Your task to perform on an android device: Open Youtube and go to "Your channel" Image 0: 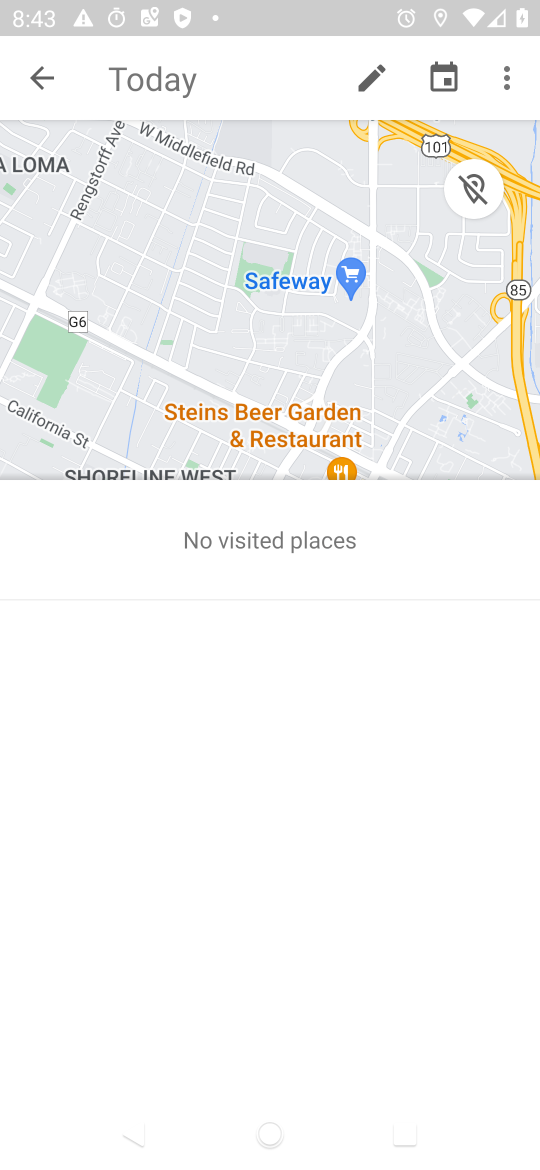
Step 0: press home button
Your task to perform on an android device: Open Youtube and go to "Your channel" Image 1: 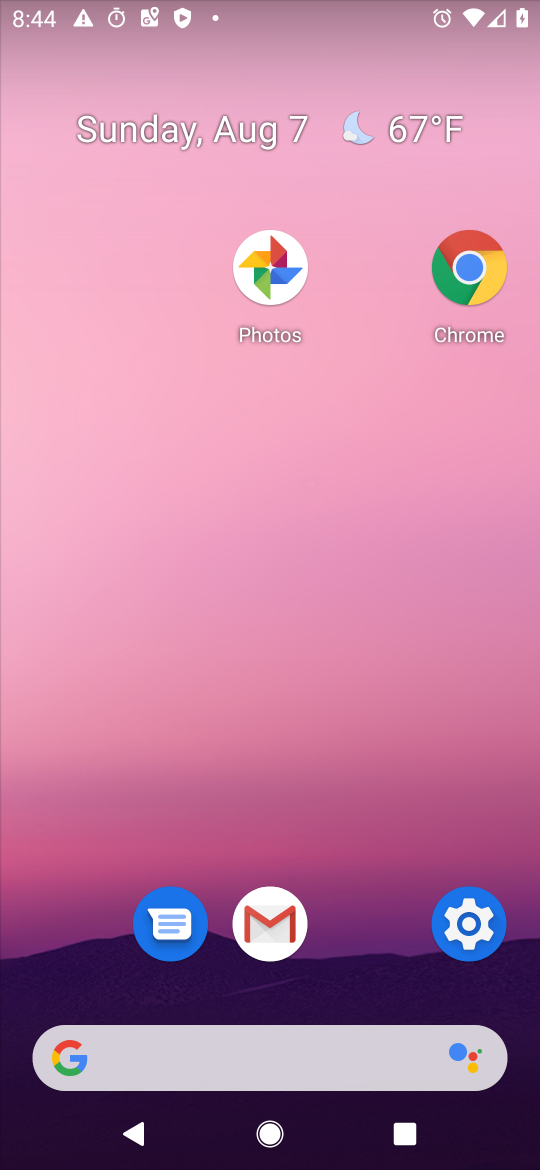
Step 1: drag from (347, 1062) to (363, 59)
Your task to perform on an android device: Open Youtube and go to "Your channel" Image 2: 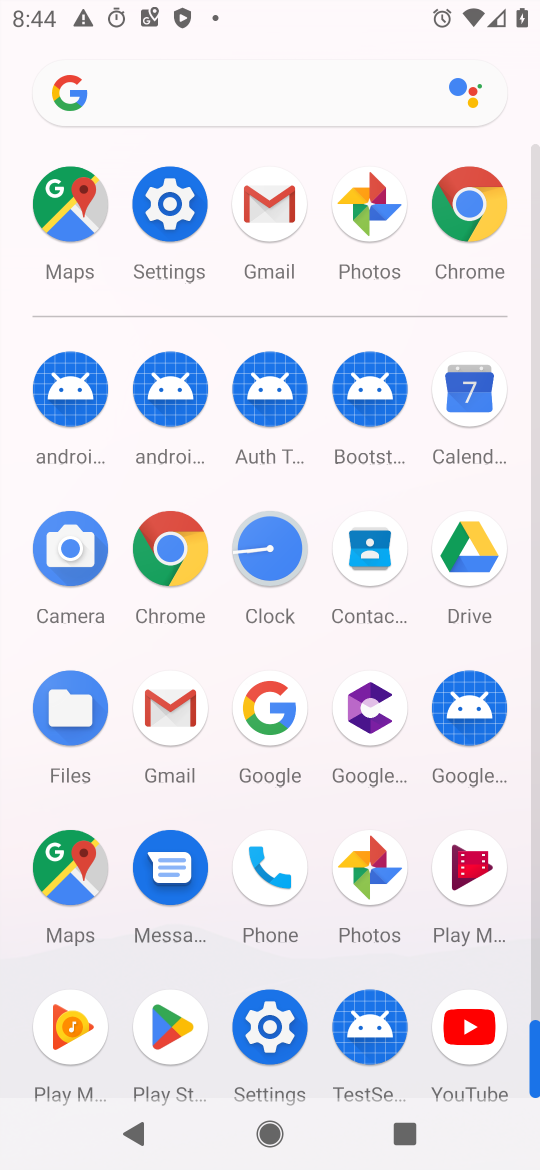
Step 2: click (466, 1019)
Your task to perform on an android device: Open Youtube and go to "Your channel" Image 3: 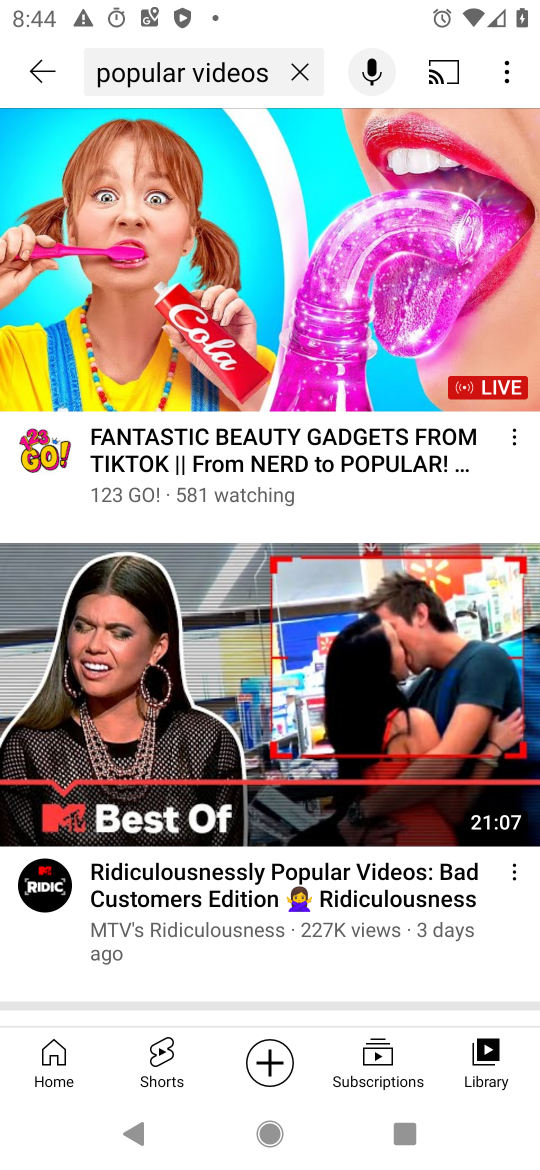
Step 3: click (36, 54)
Your task to perform on an android device: Open Youtube and go to "Your channel" Image 4: 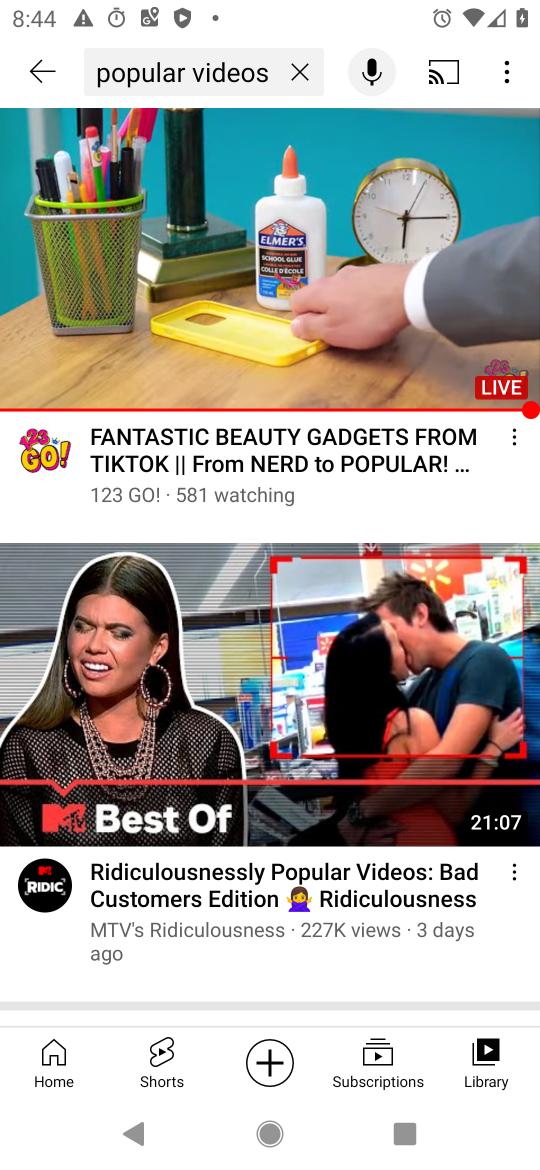
Step 4: click (51, 75)
Your task to perform on an android device: Open Youtube and go to "Your channel" Image 5: 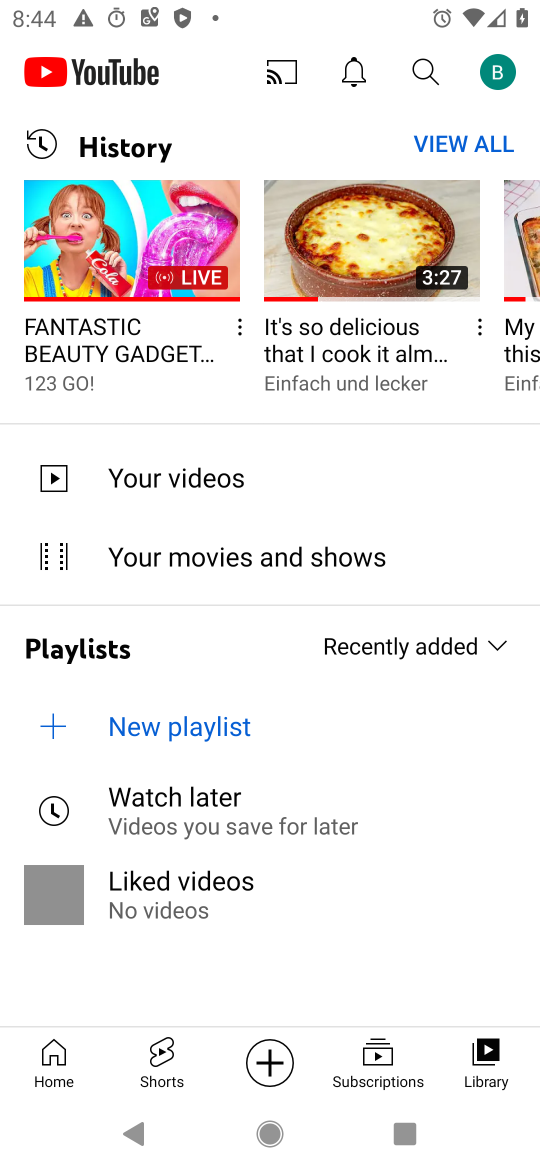
Step 5: click (501, 74)
Your task to perform on an android device: Open Youtube and go to "Your channel" Image 6: 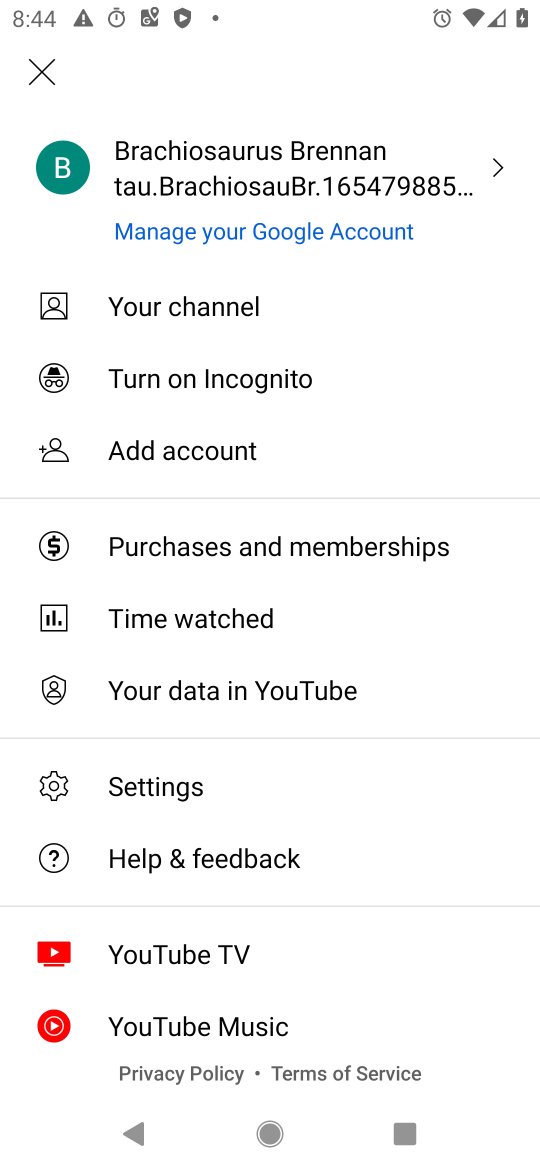
Step 6: click (175, 311)
Your task to perform on an android device: Open Youtube and go to "Your channel" Image 7: 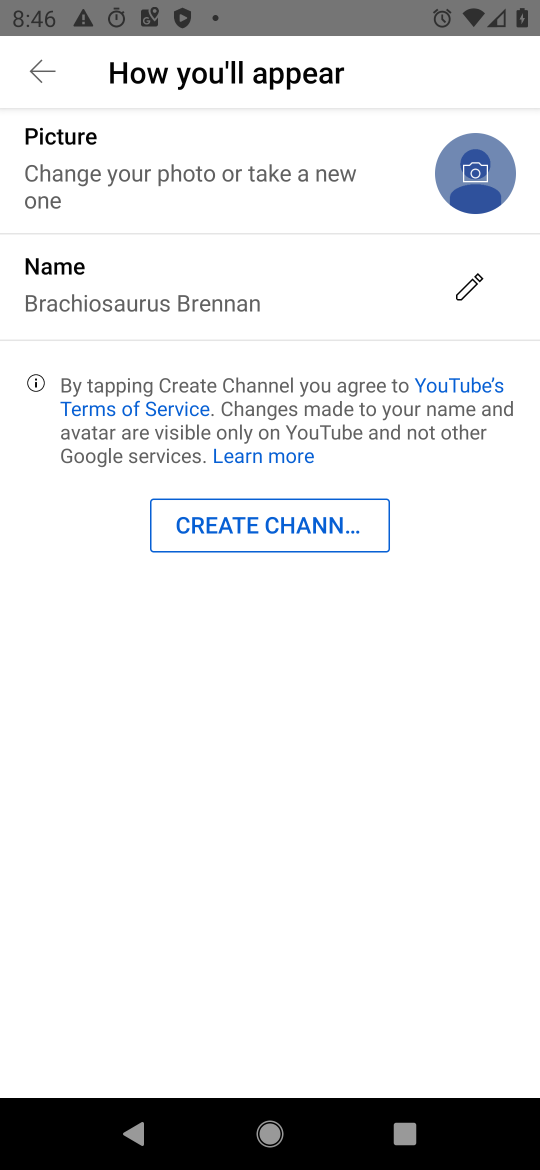
Step 7: task complete